Your task to perform on an android device: Open Youtube and go to "Your channel" Image 0: 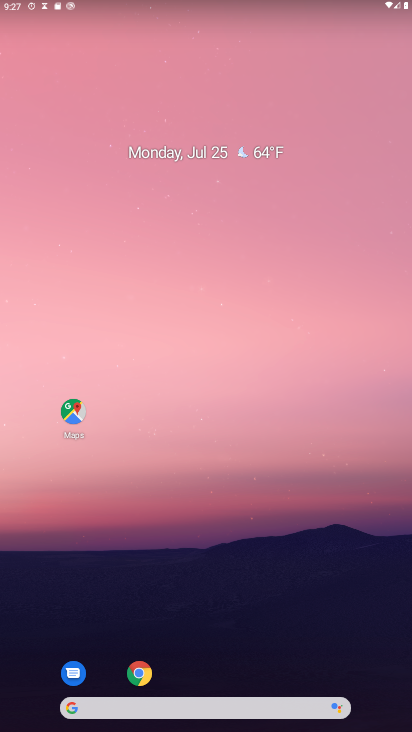
Step 0: press home button
Your task to perform on an android device: Open Youtube and go to "Your channel" Image 1: 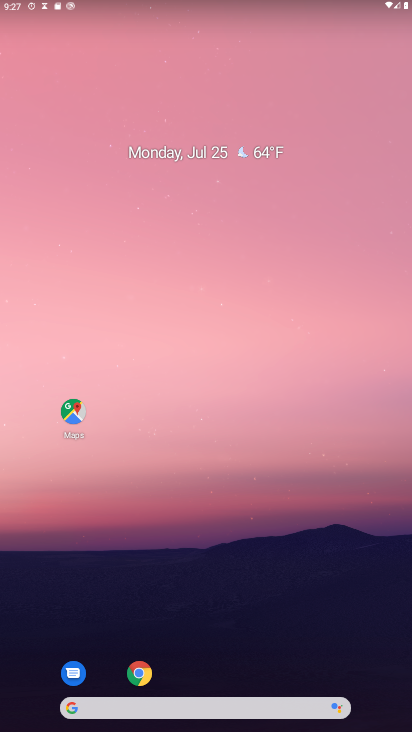
Step 1: drag from (214, 675) to (207, 80)
Your task to perform on an android device: Open Youtube and go to "Your channel" Image 2: 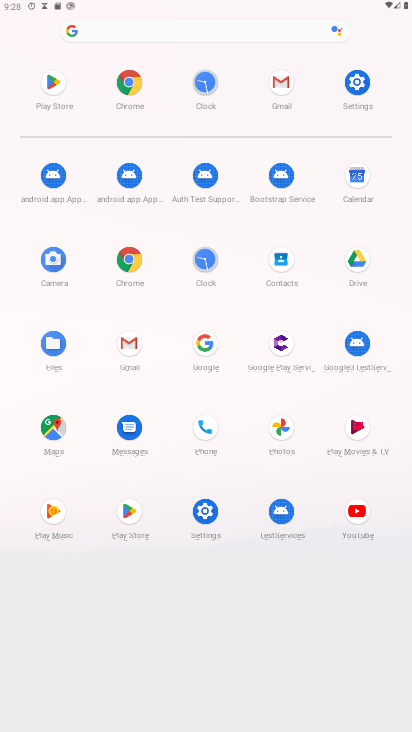
Step 2: click (356, 505)
Your task to perform on an android device: Open Youtube and go to "Your channel" Image 3: 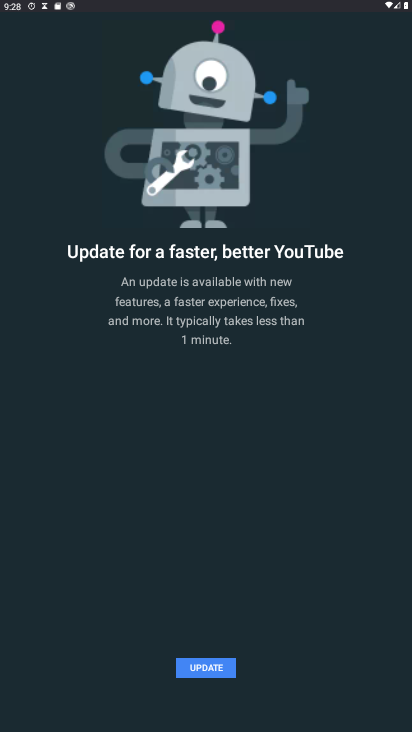
Step 3: click (204, 665)
Your task to perform on an android device: Open Youtube and go to "Your channel" Image 4: 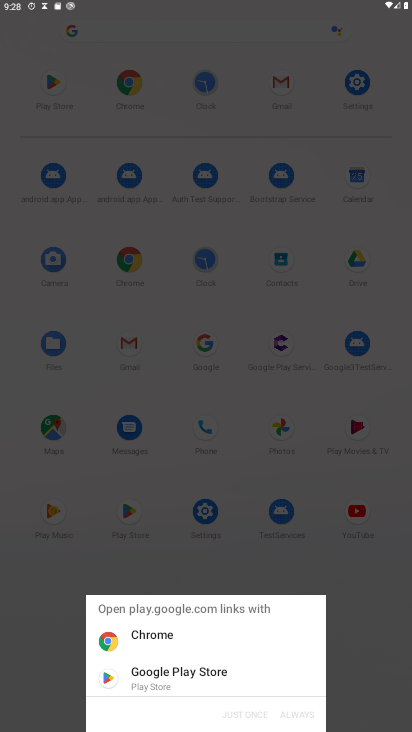
Step 4: click (145, 675)
Your task to perform on an android device: Open Youtube and go to "Your channel" Image 5: 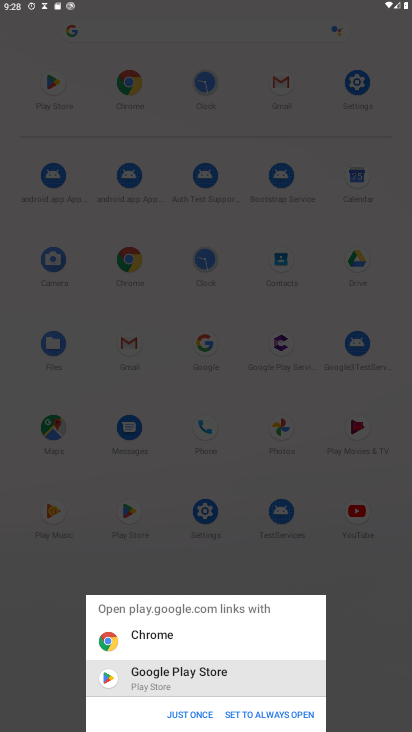
Step 5: click (187, 712)
Your task to perform on an android device: Open Youtube and go to "Your channel" Image 6: 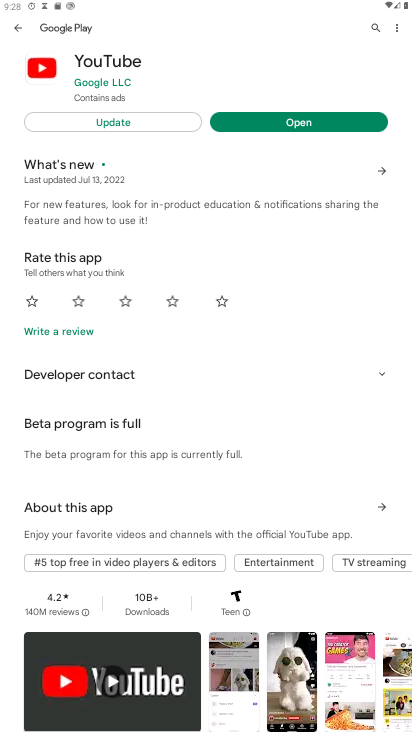
Step 6: click (111, 117)
Your task to perform on an android device: Open Youtube and go to "Your channel" Image 7: 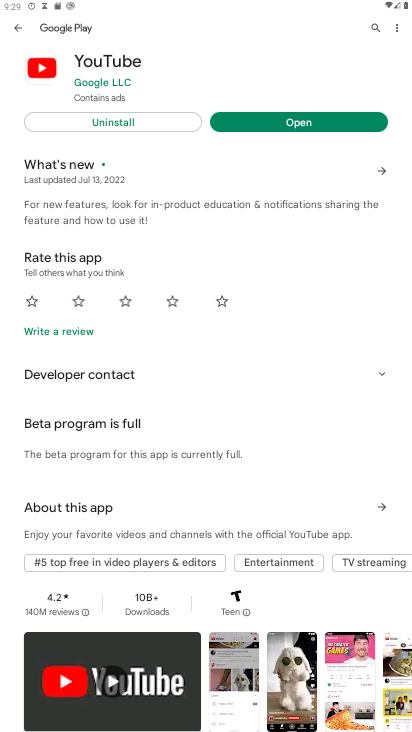
Step 7: click (299, 116)
Your task to perform on an android device: Open Youtube and go to "Your channel" Image 8: 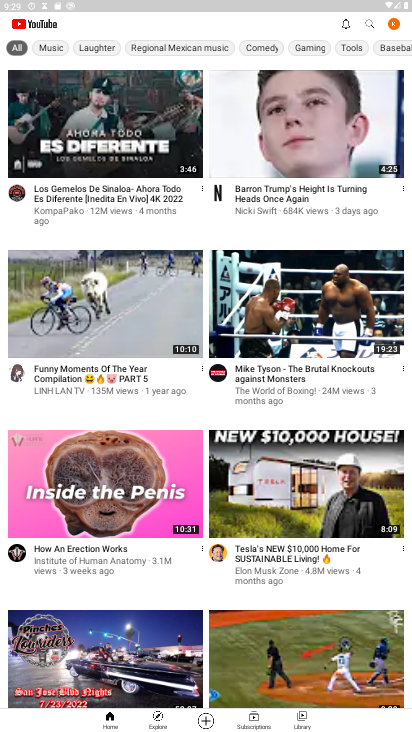
Step 8: click (391, 22)
Your task to perform on an android device: Open Youtube and go to "Your channel" Image 9: 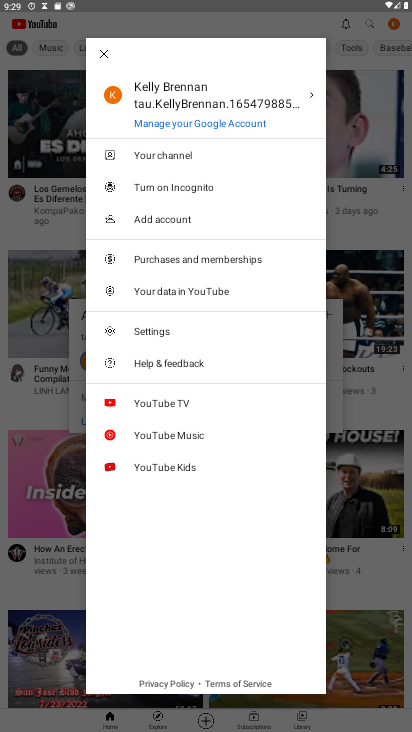
Step 9: click (182, 153)
Your task to perform on an android device: Open Youtube and go to "Your channel" Image 10: 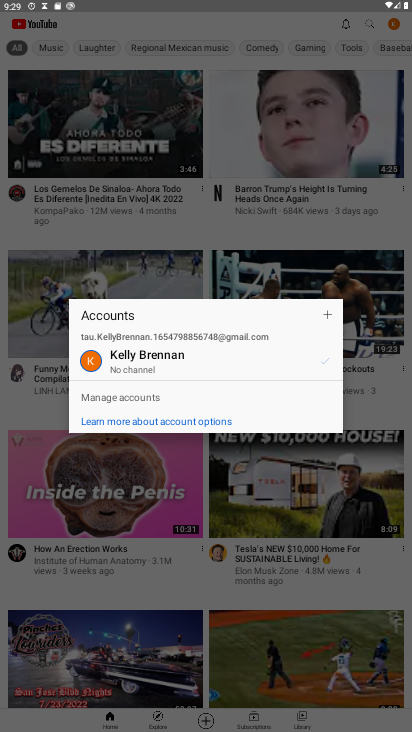
Step 10: task complete